Your task to perform on an android device: turn on sleep mode Image 0: 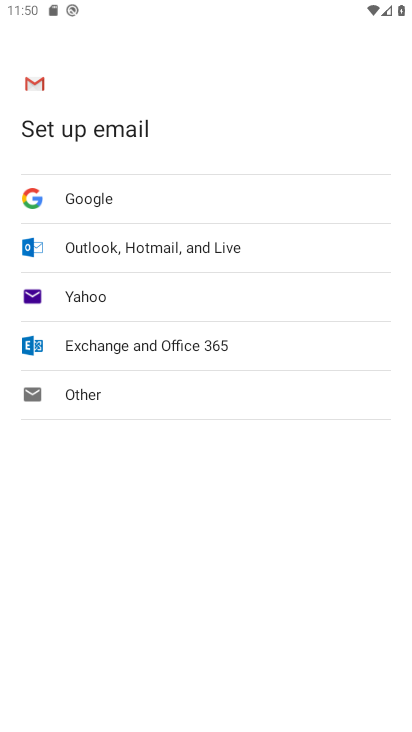
Step 0: press home button
Your task to perform on an android device: turn on sleep mode Image 1: 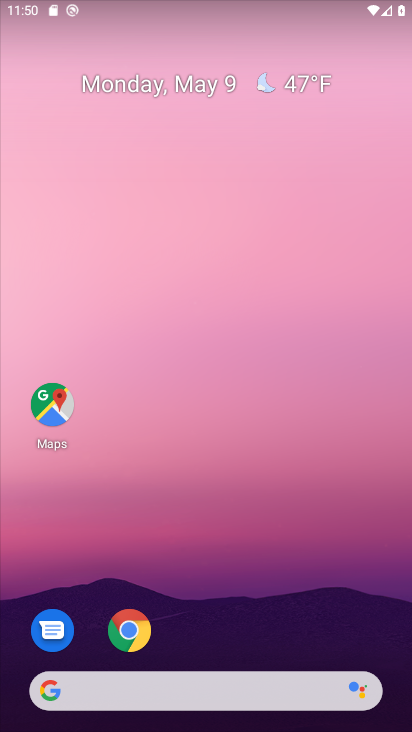
Step 1: drag from (311, 619) to (92, 108)
Your task to perform on an android device: turn on sleep mode Image 2: 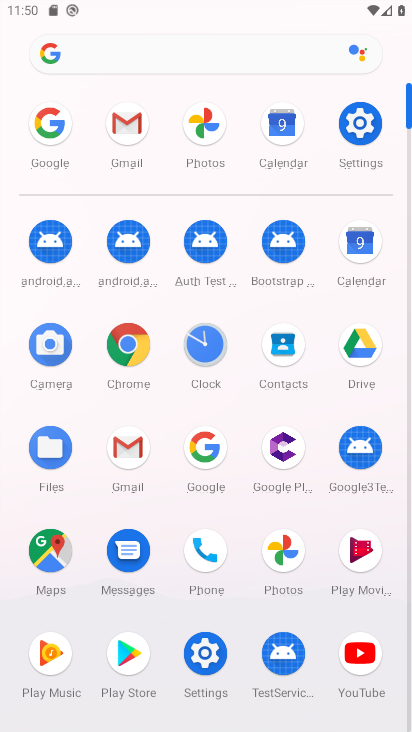
Step 2: click (365, 131)
Your task to perform on an android device: turn on sleep mode Image 3: 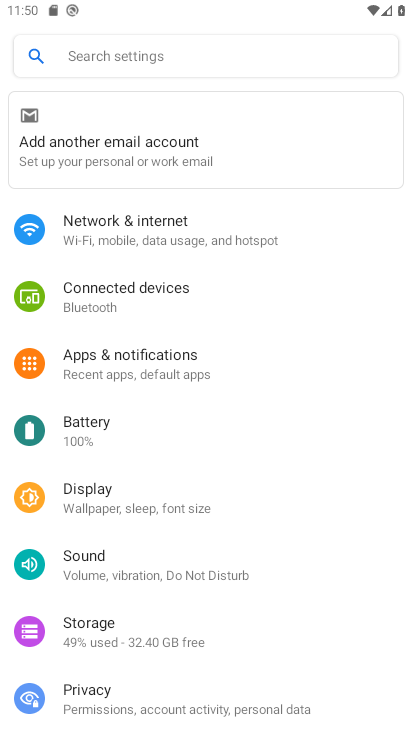
Step 3: click (134, 500)
Your task to perform on an android device: turn on sleep mode Image 4: 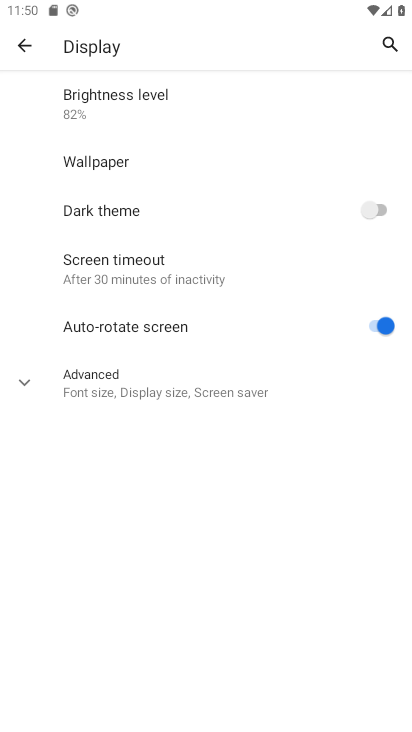
Step 4: click (207, 399)
Your task to perform on an android device: turn on sleep mode Image 5: 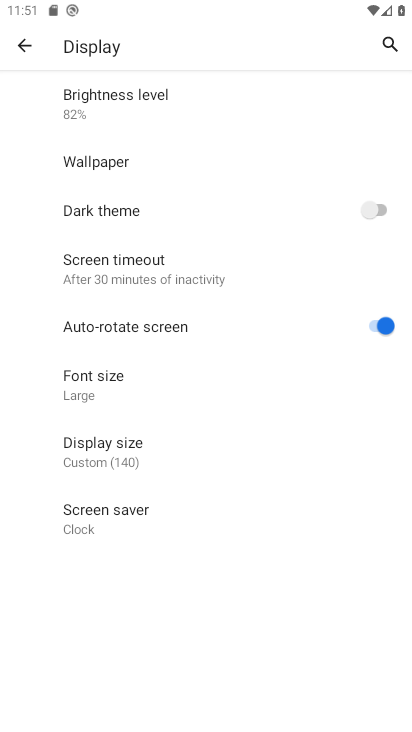
Step 5: task complete